Your task to perform on an android device: read, delete, or share a saved page in the chrome app Image 0: 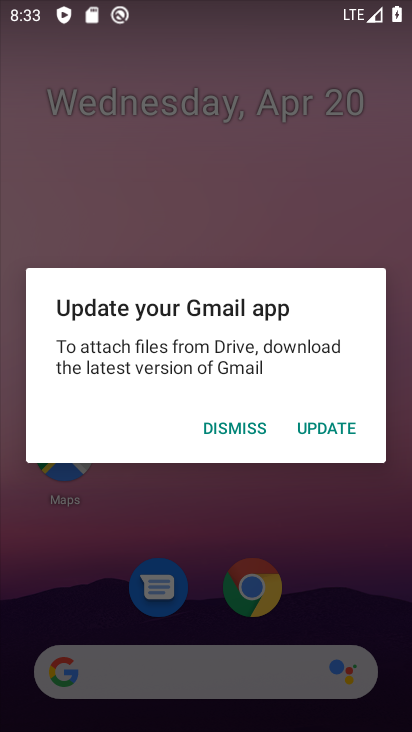
Step 0: press home button
Your task to perform on an android device: read, delete, or share a saved page in the chrome app Image 1: 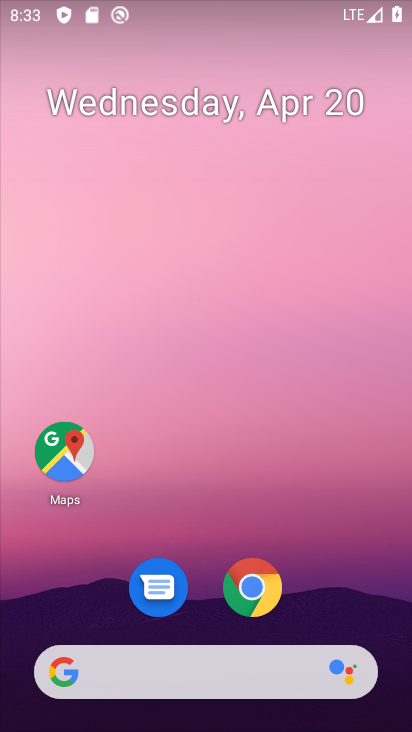
Step 1: drag from (355, 578) to (359, 221)
Your task to perform on an android device: read, delete, or share a saved page in the chrome app Image 2: 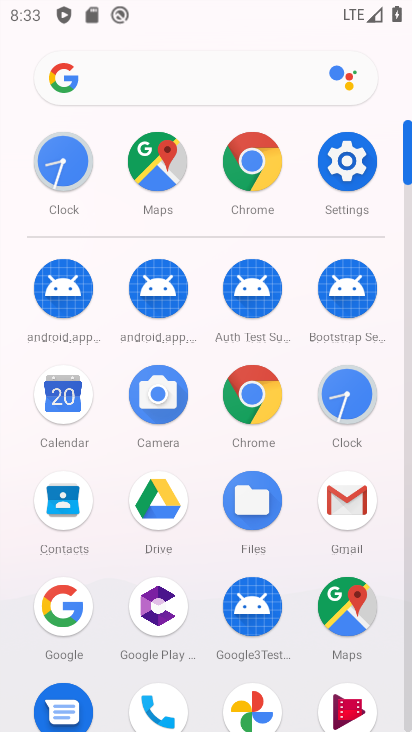
Step 2: click (227, 396)
Your task to perform on an android device: read, delete, or share a saved page in the chrome app Image 3: 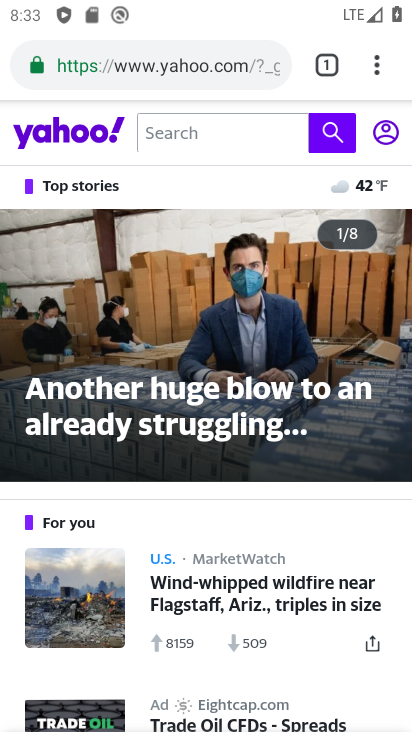
Step 3: click (378, 70)
Your task to perform on an android device: read, delete, or share a saved page in the chrome app Image 4: 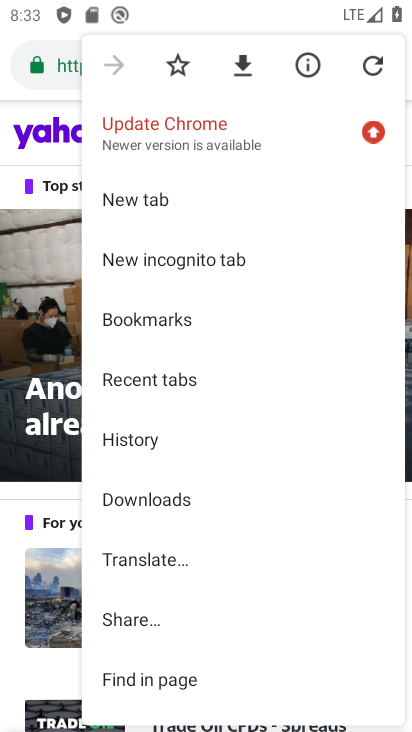
Step 4: drag from (331, 552) to (338, 438)
Your task to perform on an android device: read, delete, or share a saved page in the chrome app Image 5: 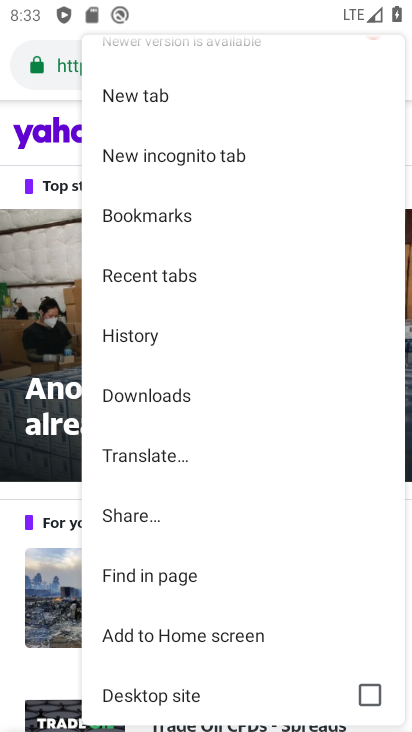
Step 5: drag from (337, 583) to (335, 378)
Your task to perform on an android device: read, delete, or share a saved page in the chrome app Image 6: 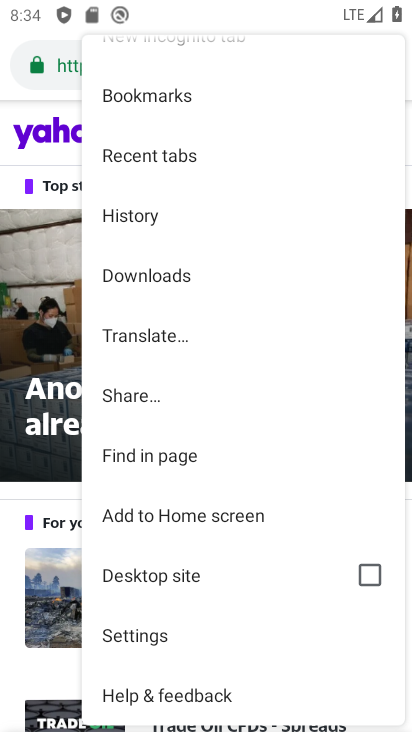
Step 6: drag from (328, 505) to (332, 355)
Your task to perform on an android device: read, delete, or share a saved page in the chrome app Image 7: 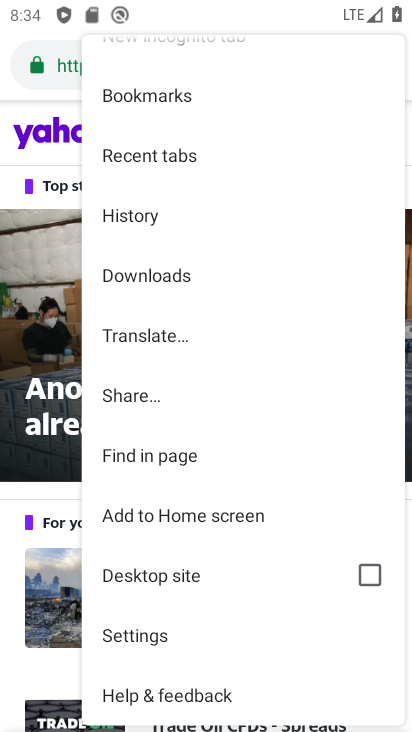
Step 7: click (180, 283)
Your task to perform on an android device: read, delete, or share a saved page in the chrome app Image 8: 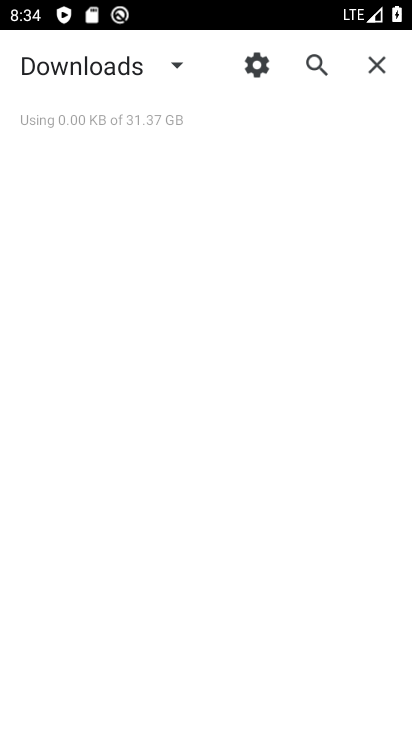
Step 8: click (178, 65)
Your task to perform on an android device: read, delete, or share a saved page in the chrome app Image 9: 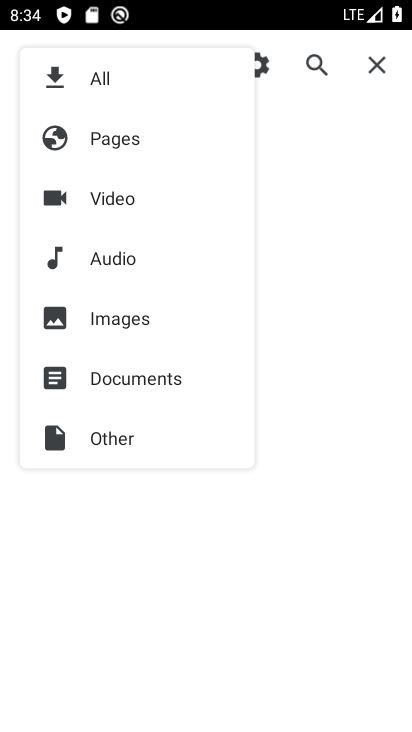
Step 9: click (131, 138)
Your task to perform on an android device: read, delete, or share a saved page in the chrome app Image 10: 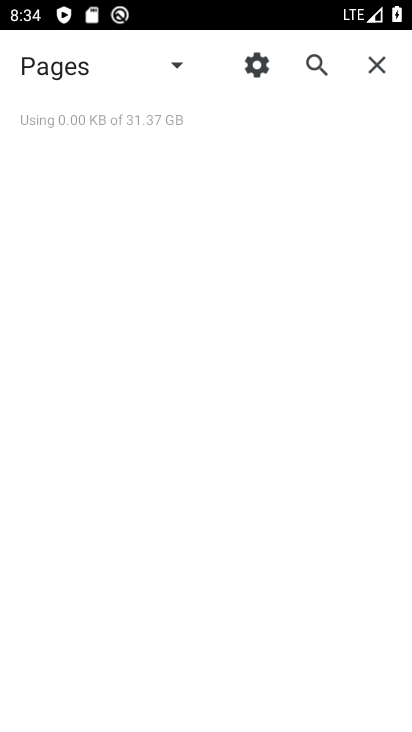
Step 10: task complete